Your task to perform on an android device: set the timer Image 0: 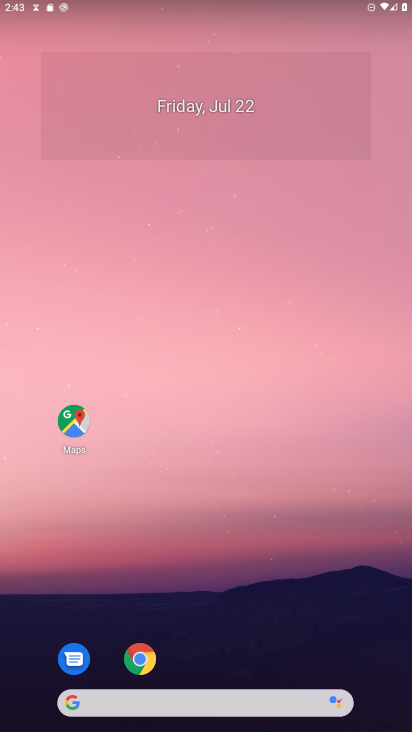
Step 0: drag from (218, 683) to (201, 69)
Your task to perform on an android device: set the timer Image 1: 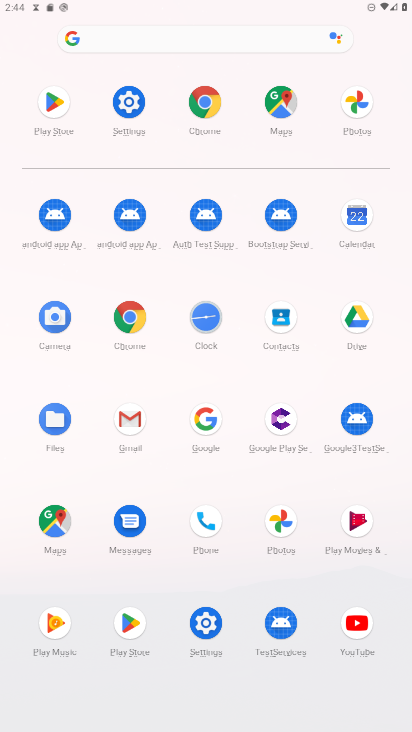
Step 1: click (196, 312)
Your task to perform on an android device: set the timer Image 2: 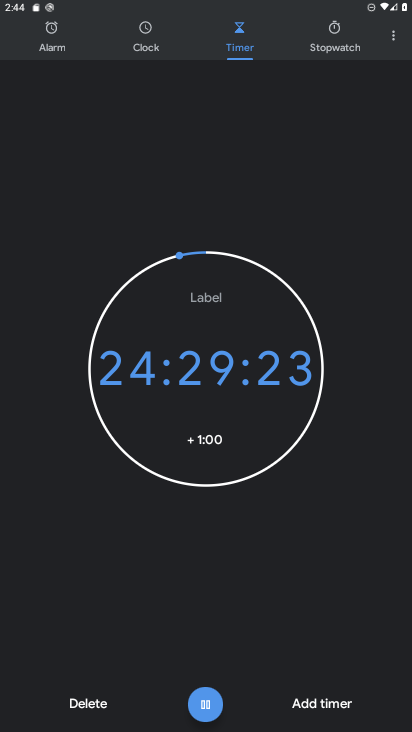
Step 2: task complete